Your task to perform on an android device: check data usage Image 0: 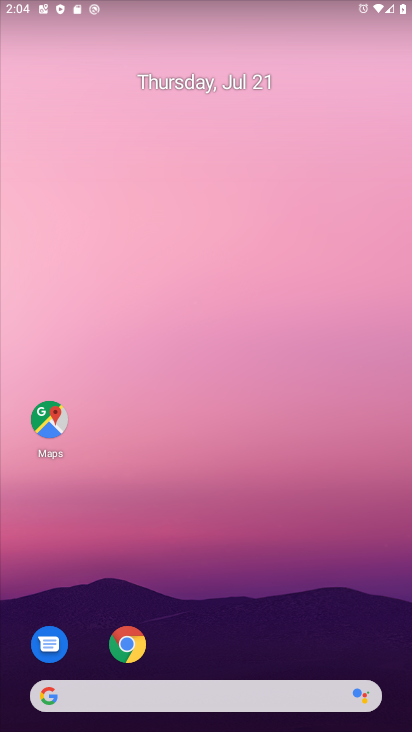
Step 0: drag from (222, 644) to (338, 131)
Your task to perform on an android device: check data usage Image 1: 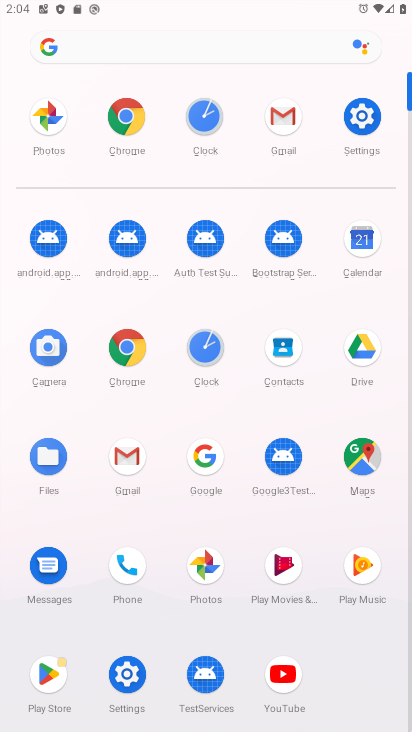
Step 1: click (353, 119)
Your task to perform on an android device: check data usage Image 2: 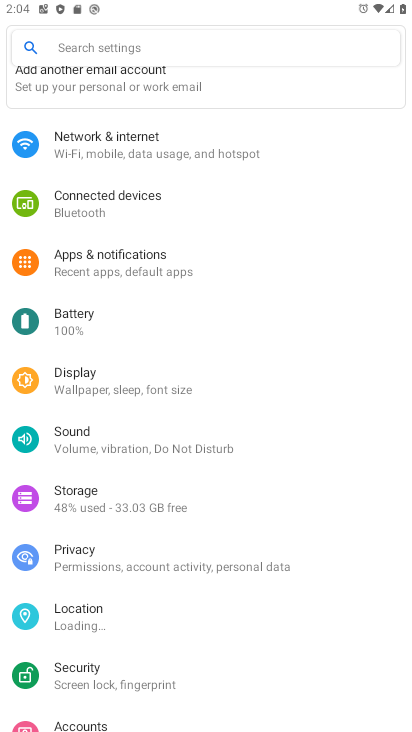
Step 2: click (137, 137)
Your task to perform on an android device: check data usage Image 3: 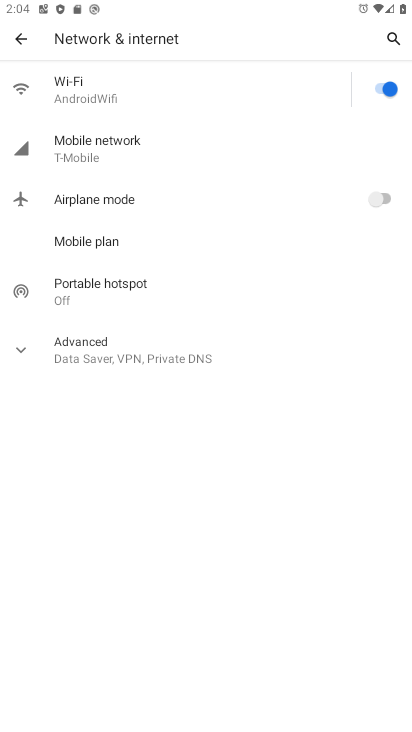
Step 3: click (121, 144)
Your task to perform on an android device: check data usage Image 4: 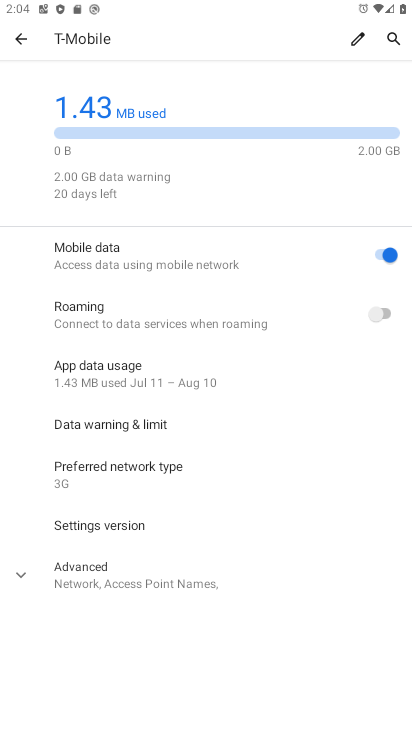
Step 4: task complete